Your task to perform on an android device: change the clock style Image 0: 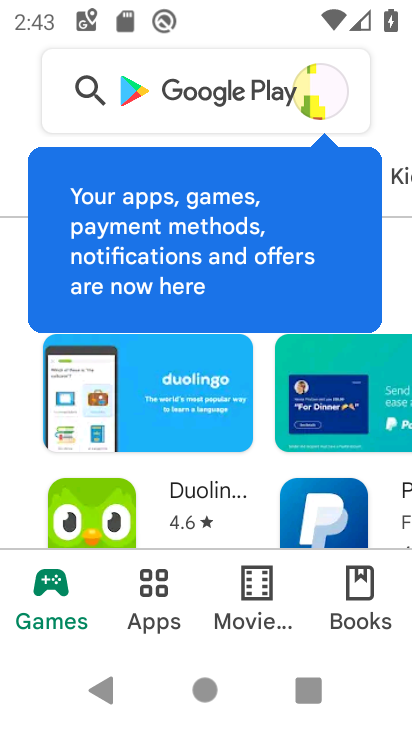
Step 0: press home button
Your task to perform on an android device: change the clock style Image 1: 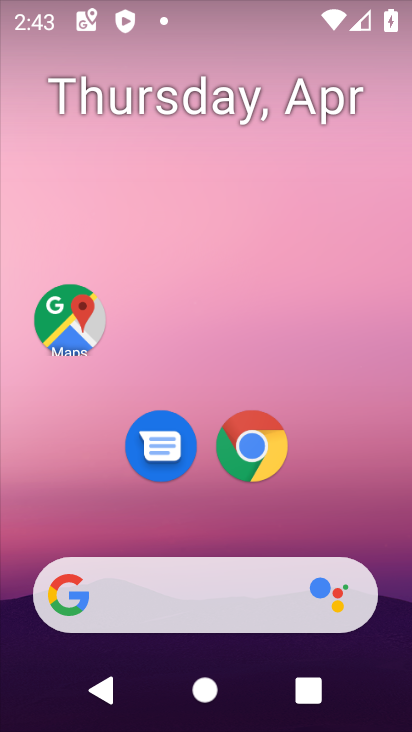
Step 1: drag from (249, 604) to (334, 103)
Your task to perform on an android device: change the clock style Image 2: 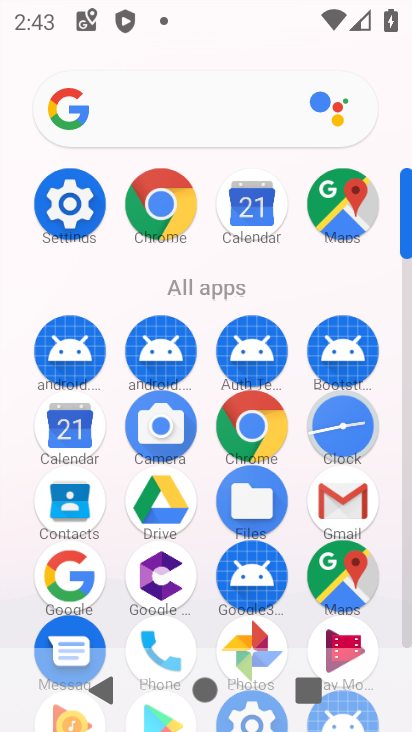
Step 2: click (340, 403)
Your task to perform on an android device: change the clock style Image 3: 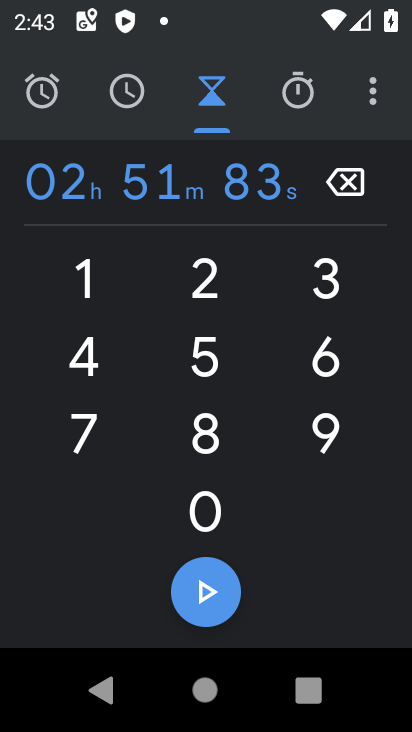
Step 3: click (372, 91)
Your task to perform on an android device: change the clock style Image 4: 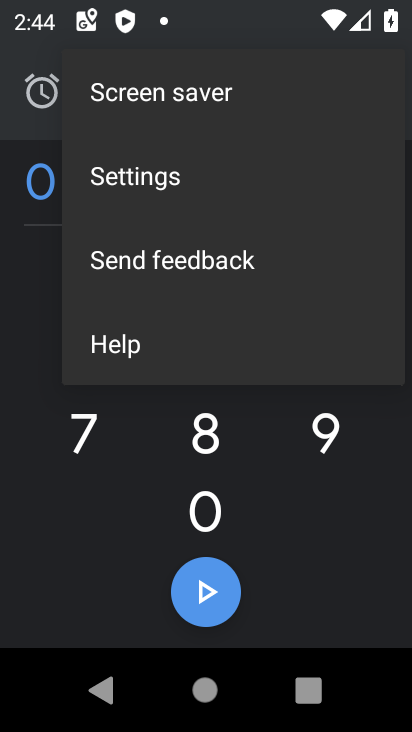
Step 4: click (174, 187)
Your task to perform on an android device: change the clock style Image 5: 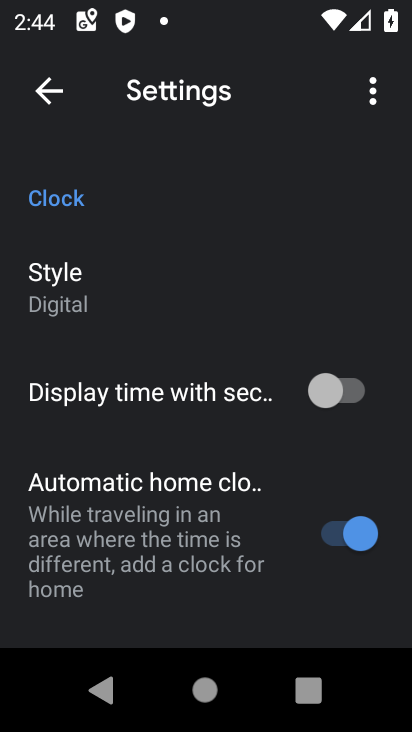
Step 5: click (92, 280)
Your task to perform on an android device: change the clock style Image 6: 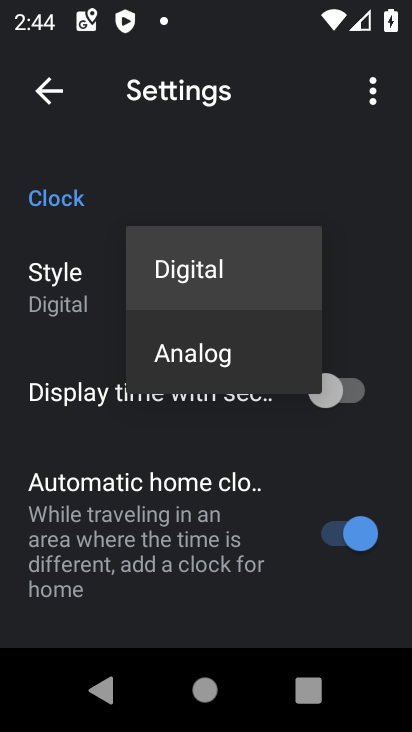
Step 6: click (183, 354)
Your task to perform on an android device: change the clock style Image 7: 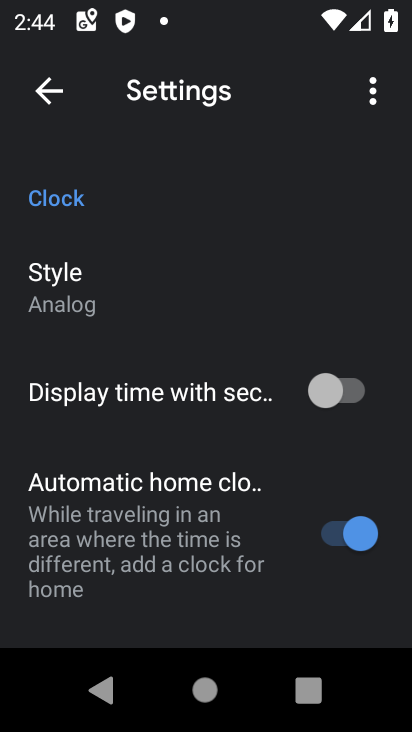
Step 7: task complete